Your task to perform on an android device: Go to settings Image 0: 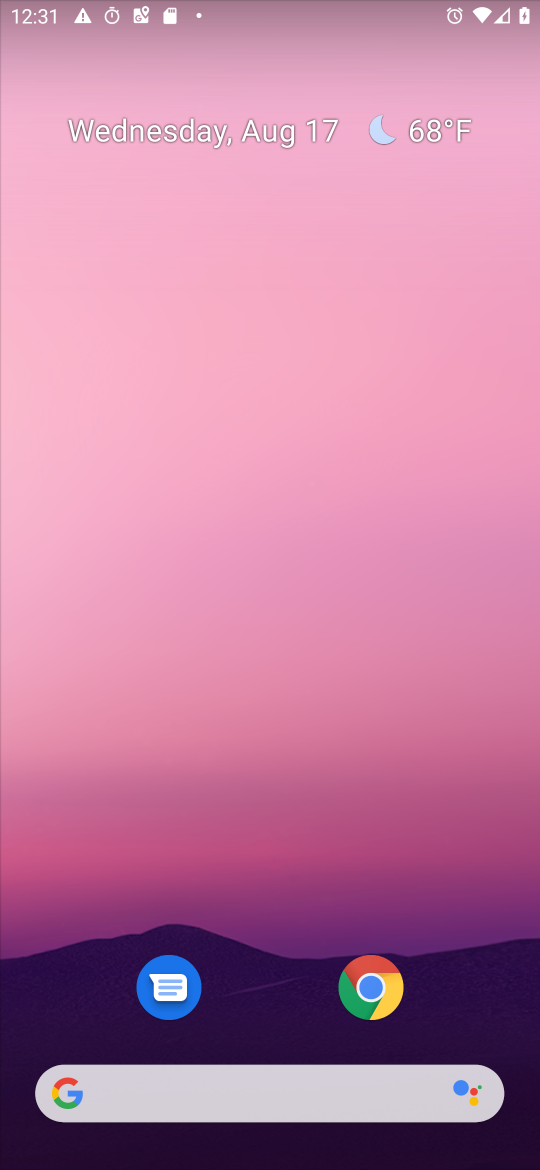
Step 0: drag from (84, 1001) to (282, 640)
Your task to perform on an android device: Go to settings Image 1: 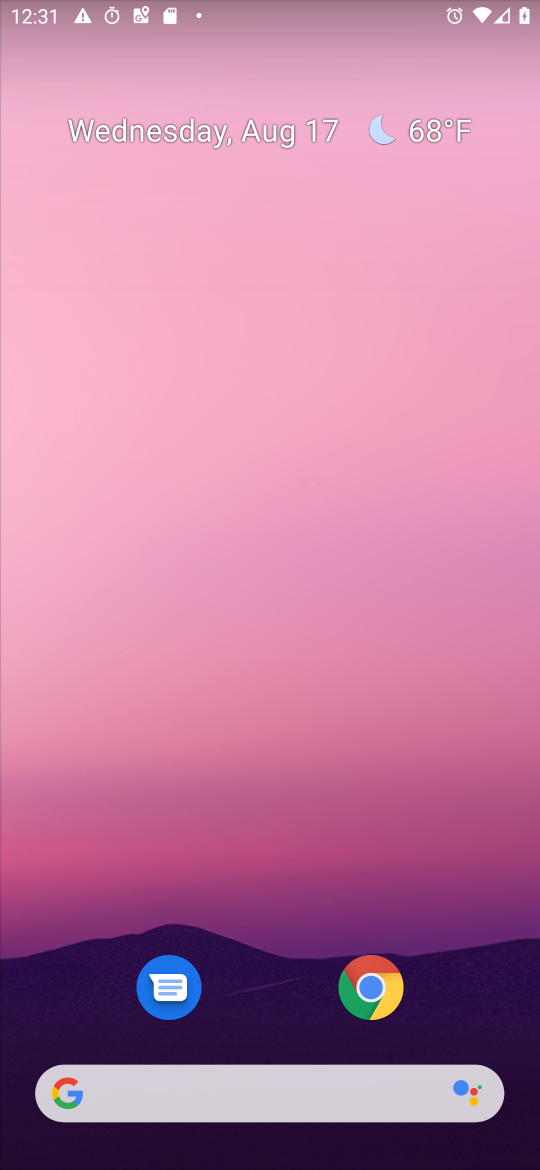
Step 1: click (36, 1140)
Your task to perform on an android device: Go to settings Image 2: 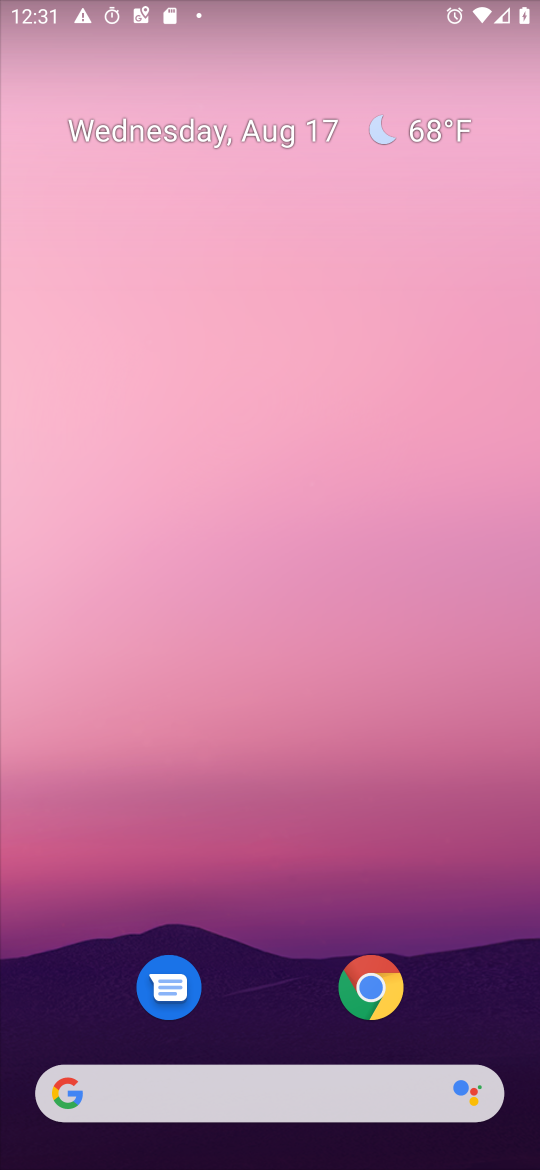
Step 2: drag from (33, 1143) to (90, 843)
Your task to perform on an android device: Go to settings Image 3: 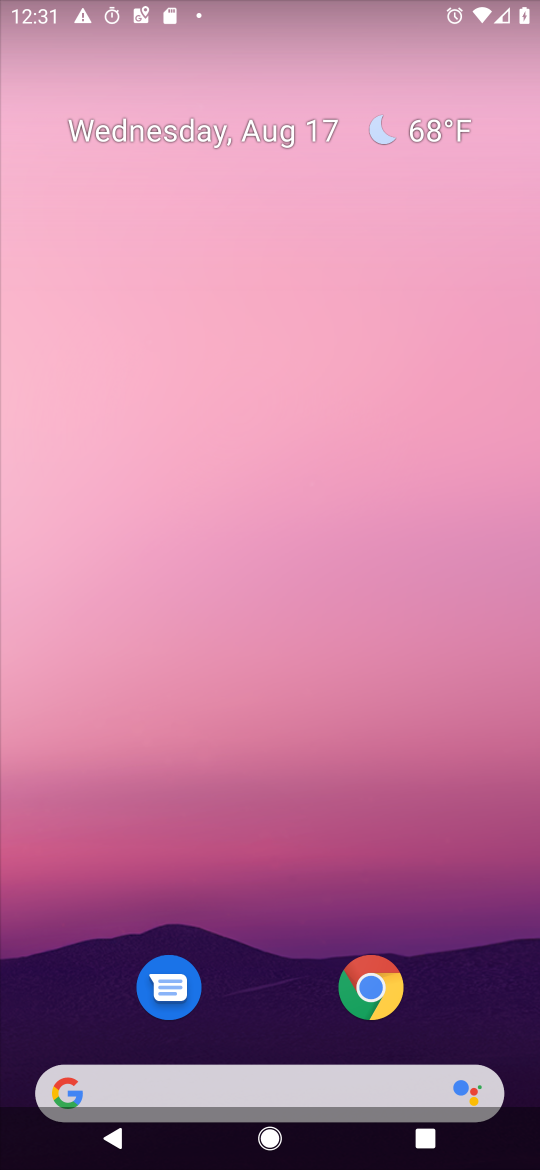
Step 3: drag from (5, 1062) to (226, 619)
Your task to perform on an android device: Go to settings Image 4: 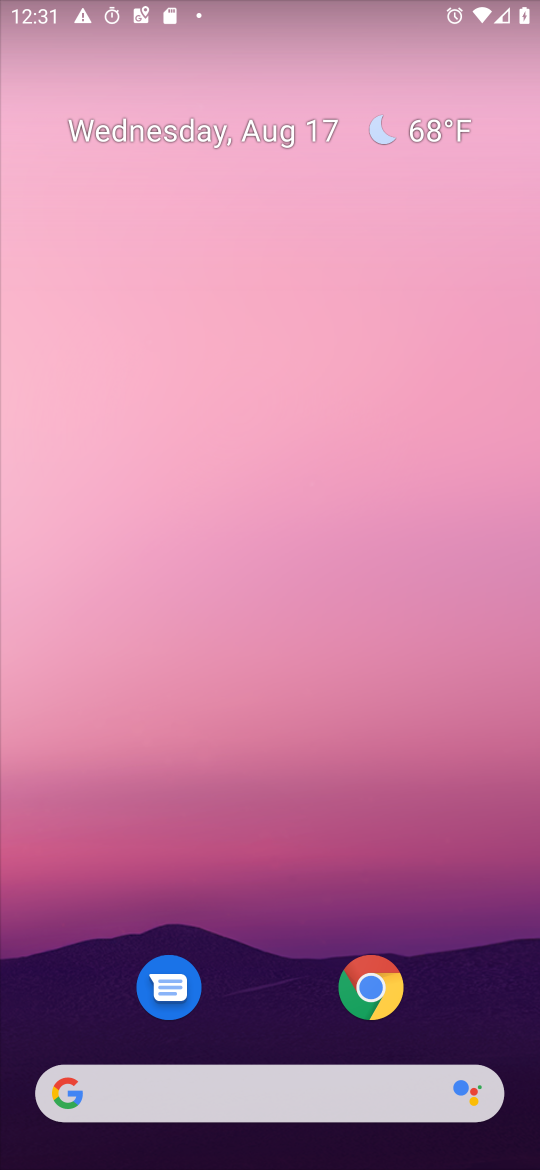
Step 4: drag from (188, 835) to (208, 785)
Your task to perform on an android device: Go to settings Image 5: 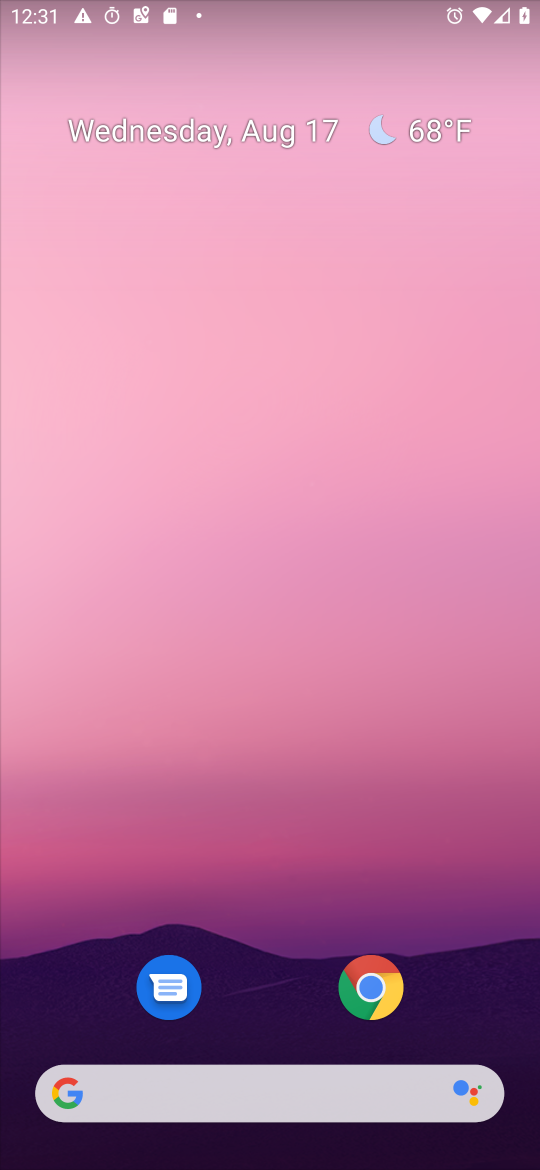
Step 5: drag from (23, 1104) to (210, 471)
Your task to perform on an android device: Go to settings Image 6: 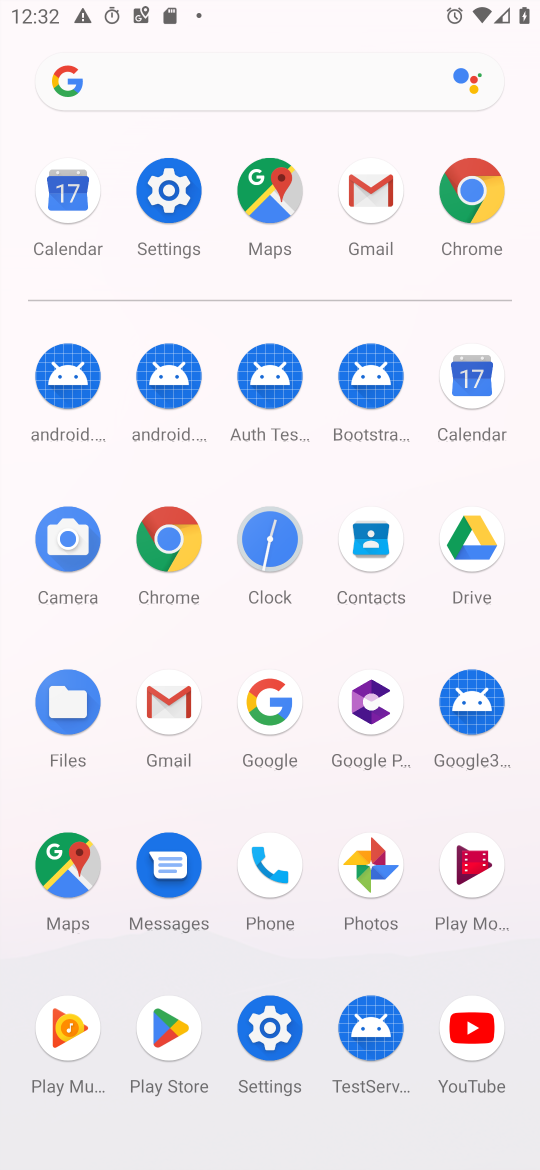
Step 6: click (241, 1028)
Your task to perform on an android device: Go to settings Image 7: 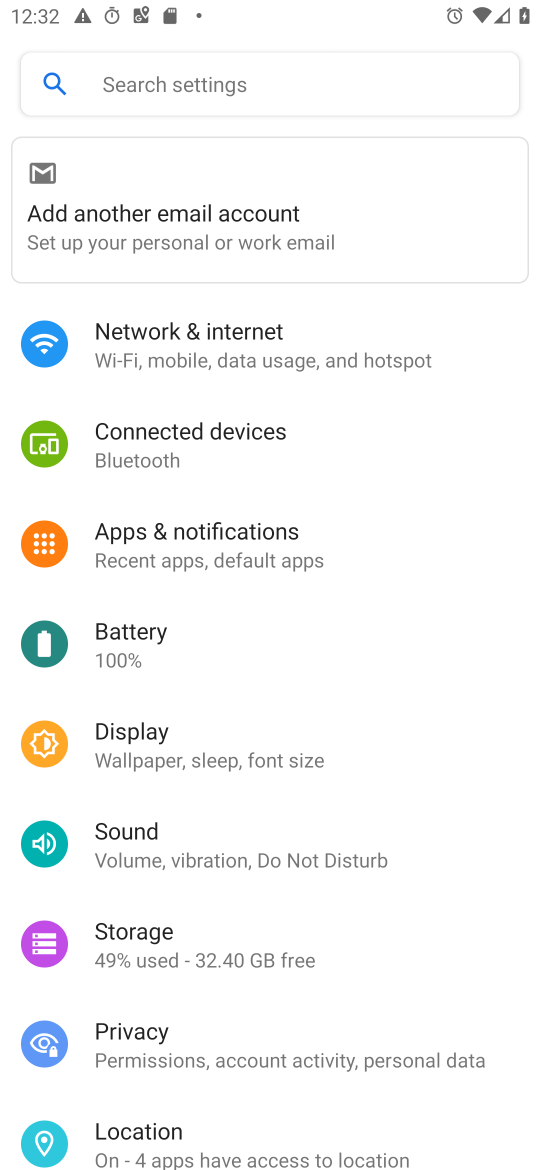
Step 7: task complete